Your task to perform on an android device: toggle priority inbox in the gmail app Image 0: 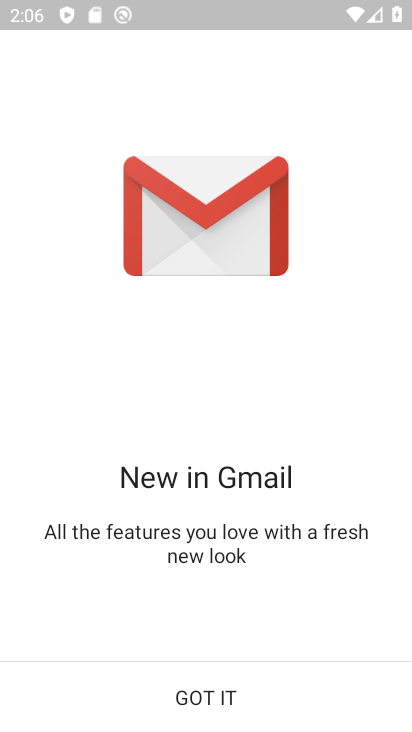
Step 0: press home button
Your task to perform on an android device: toggle priority inbox in the gmail app Image 1: 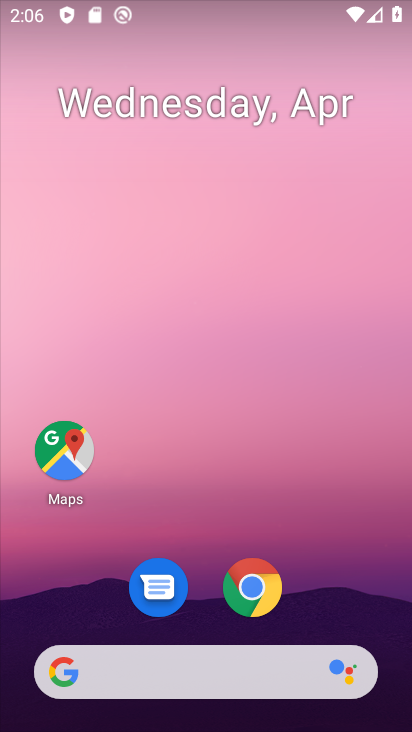
Step 1: drag from (264, 719) to (288, 7)
Your task to perform on an android device: toggle priority inbox in the gmail app Image 2: 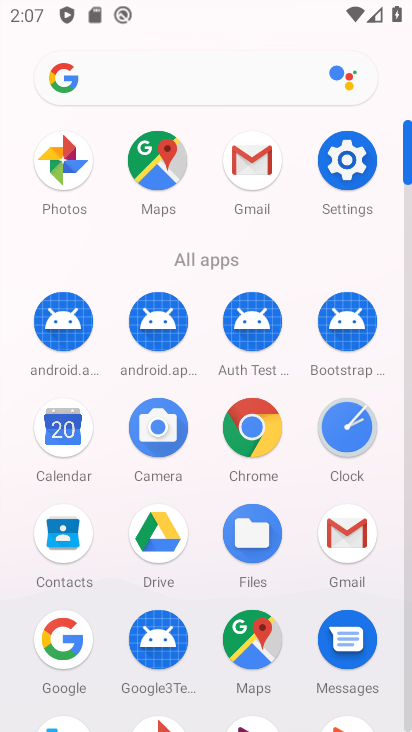
Step 2: click (263, 155)
Your task to perform on an android device: toggle priority inbox in the gmail app Image 3: 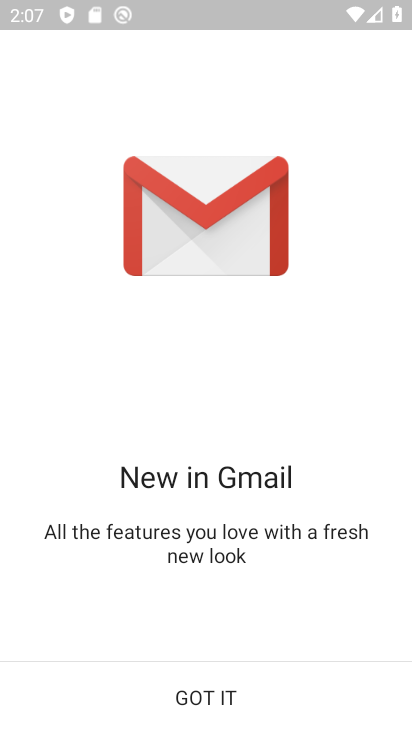
Step 3: click (210, 699)
Your task to perform on an android device: toggle priority inbox in the gmail app Image 4: 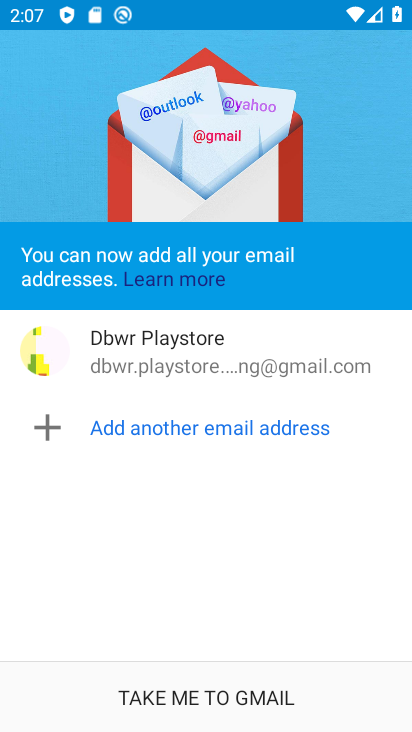
Step 4: click (219, 691)
Your task to perform on an android device: toggle priority inbox in the gmail app Image 5: 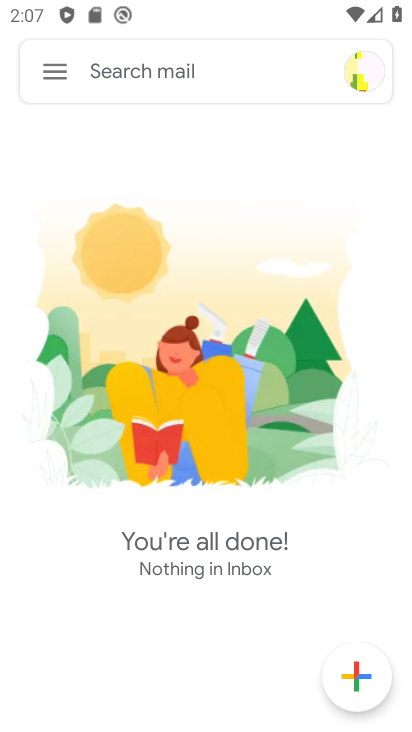
Step 5: click (39, 57)
Your task to perform on an android device: toggle priority inbox in the gmail app Image 6: 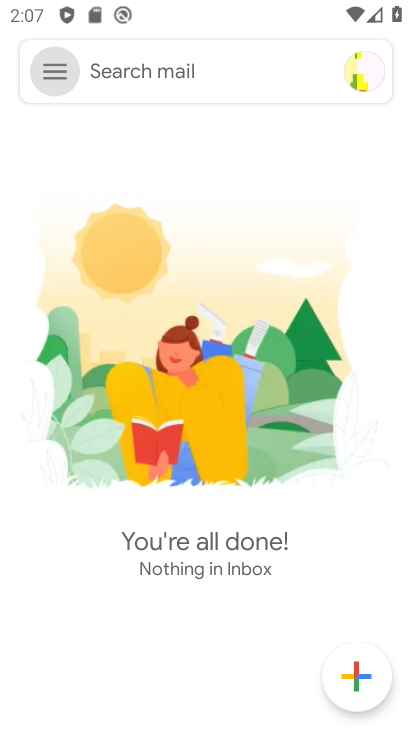
Step 6: click (55, 78)
Your task to perform on an android device: toggle priority inbox in the gmail app Image 7: 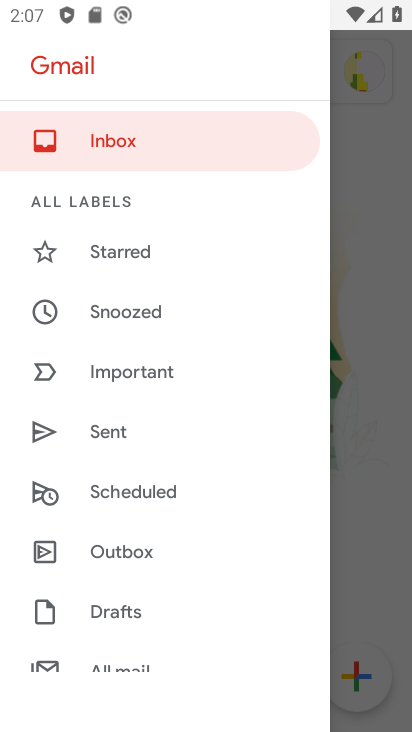
Step 7: drag from (218, 657) to (224, 6)
Your task to perform on an android device: toggle priority inbox in the gmail app Image 8: 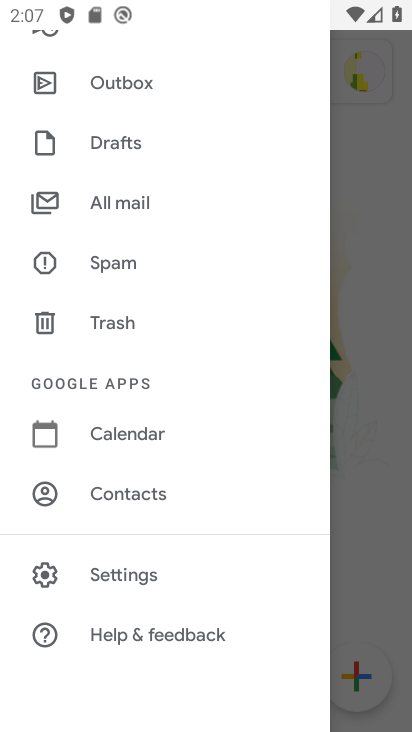
Step 8: click (160, 574)
Your task to perform on an android device: toggle priority inbox in the gmail app Image 9: 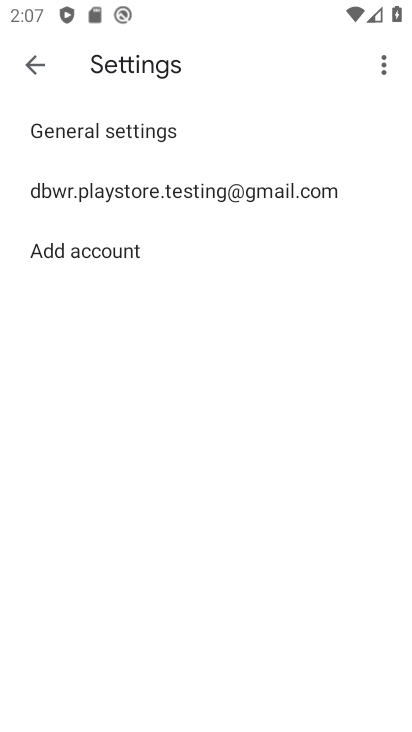
Step 9: click (144, 195)
Your task to perform on an android device: toggle priority inbox in the gmail app Image 10: 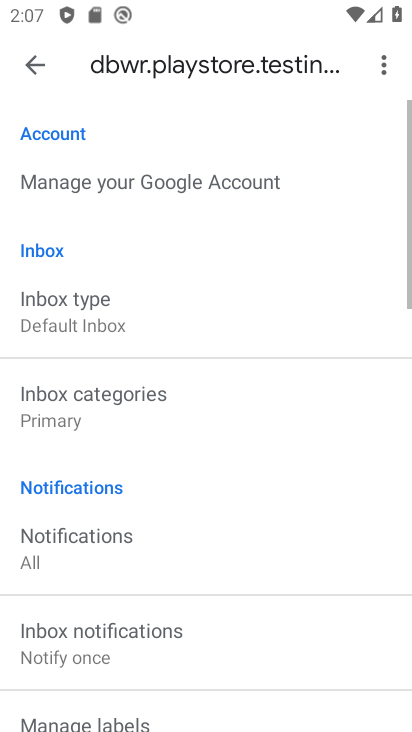
Step 10: click (93, 323)
Your task to perform on an android device: toggle priority inbox in the gmail app Image 11: 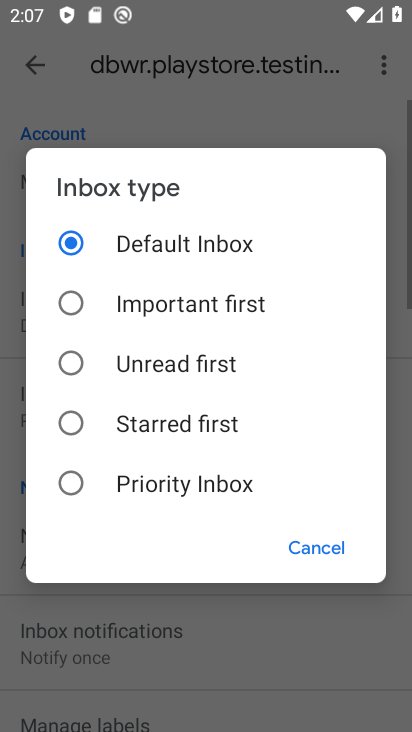
Step 11: click (205, 483)
Your task to perform on an android device: toggle priority inbox in the gmail app Image 12: 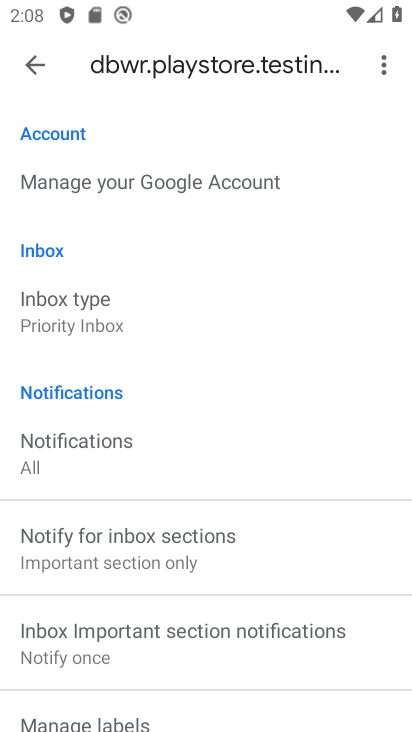
Step 12: task complete